Your task to perform on an android device: change the clock display to show seconds Image 0: 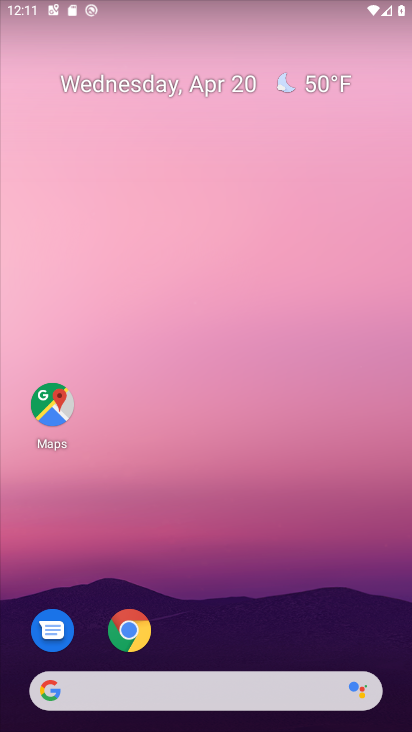
Step 0: drag from (297, 594) to (317, 134)
Your task to perform on an android device: change the clock display to show seconds Image 1: 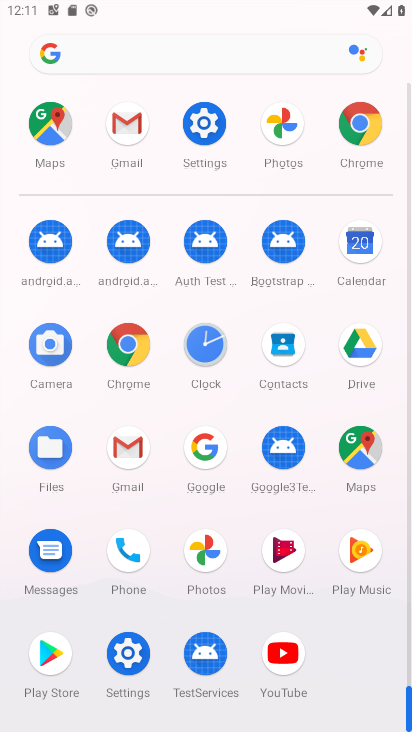
Step 1: click (207, 334)
Your task to perform on an android device: change the clock display to show seconds Image 2: 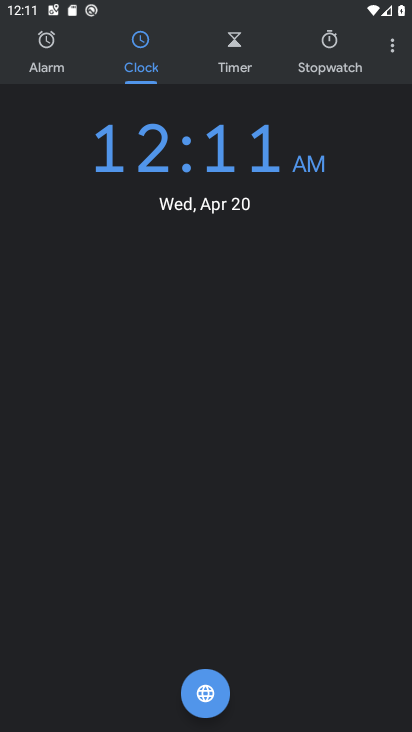
Step 2: click (389, 52)
Your task to perform on an android device: change the clock display to show seconds Image 3: 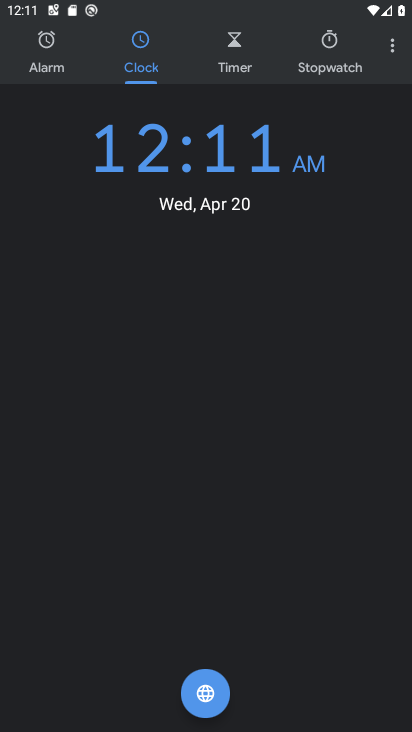
Step 3: click (388, 48)
Your task to perform on an android device: change the clock display to show seconds Image 4: 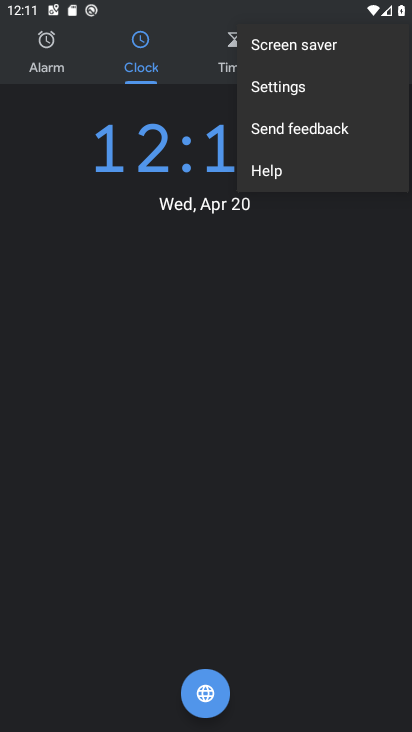
Step 4: click (302, 86)
Your task to perform on an android device: change the clock display to show seconds Image 5: 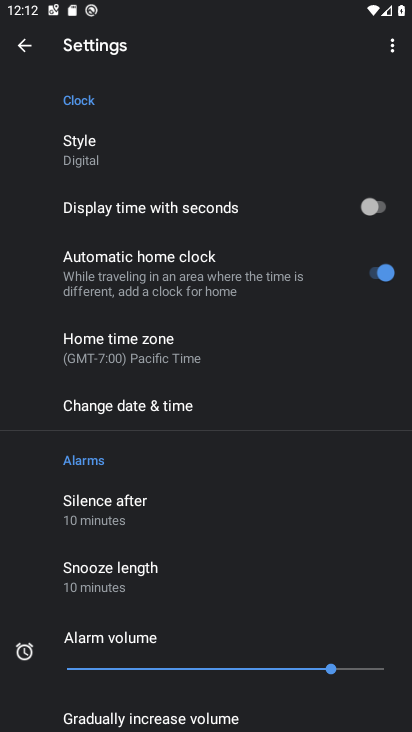
Step 5: click (374, 210)
Your task to perform on an android device: change the clock display to show seconds Image 6: 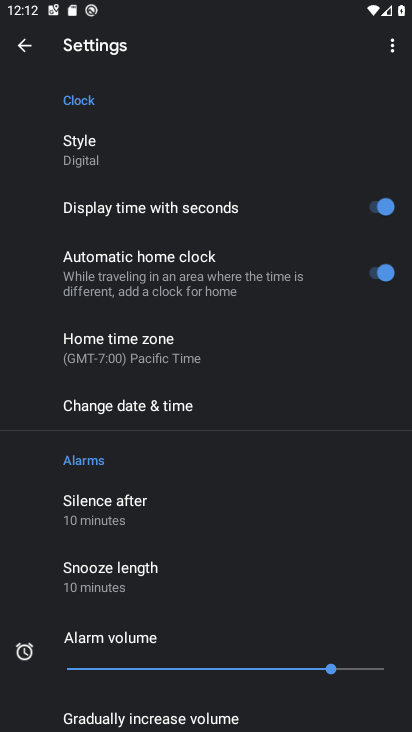
Step 6: task complete